Your task to perform on an android device: turn on javascript in the chrome app Image 0: 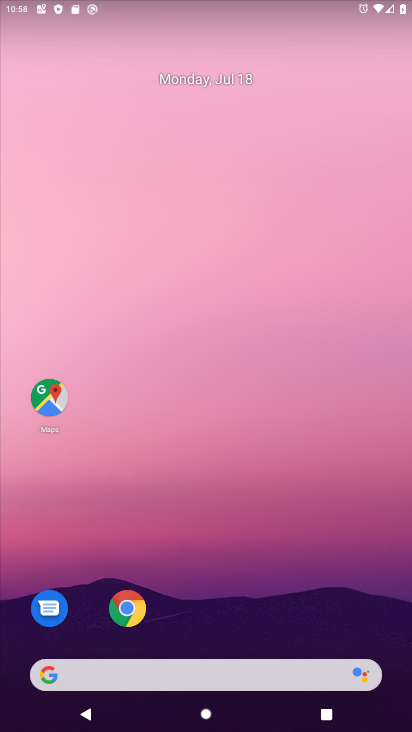
Step 0: click (129, 620)
Your task to perform on an android device: turn on javascript in the chrome app Image 1: 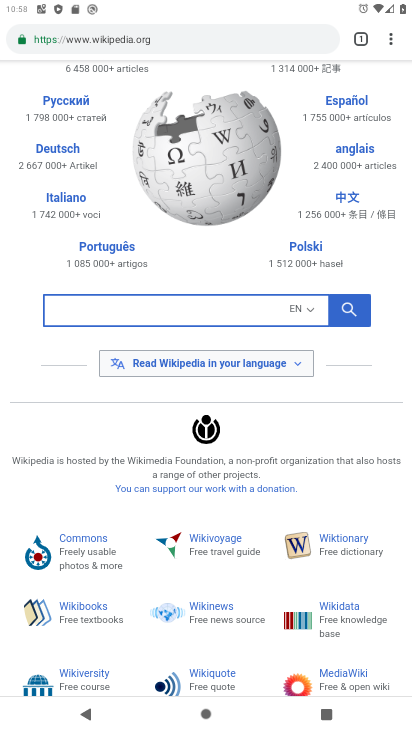
Step 1: click (387, 35)
Your task to perform on an android device: turn on javascript in the chrome app Image 2: 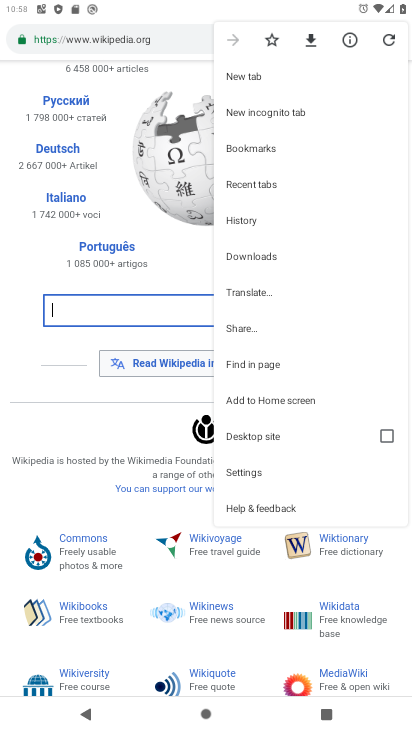
Step 2: click (243, 476)
Your task to perform on an android device: turn on javascript in the chrome app Image 3: 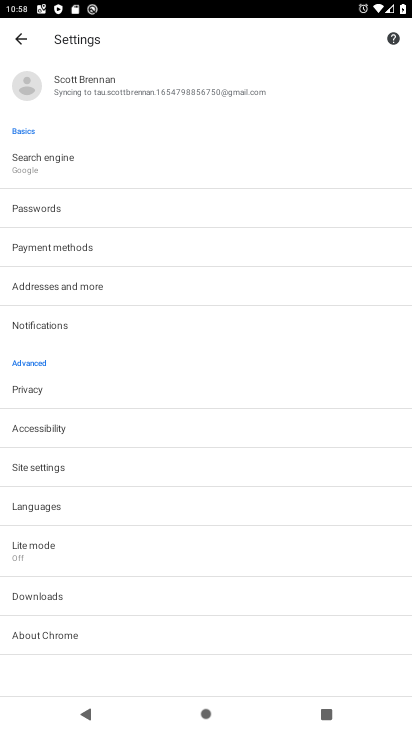
Step 3: click (55, 469)
Your task to perform on an android device: turn on javascript in the chrome app Image 4: 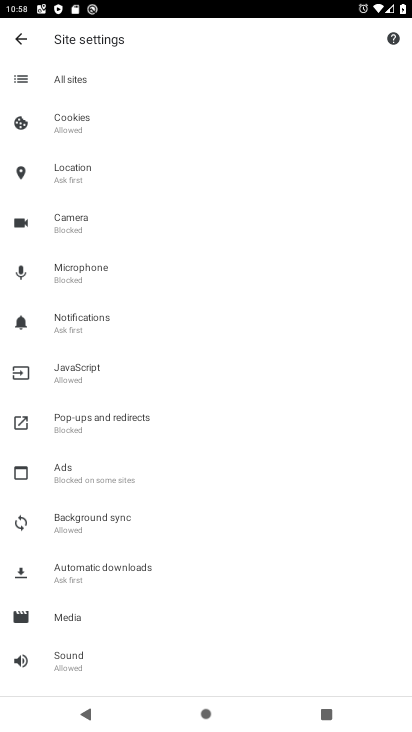
Step 4: click (88, 388)
Your task to perform on an android device: turn on javascript in the chrome app Image 5: 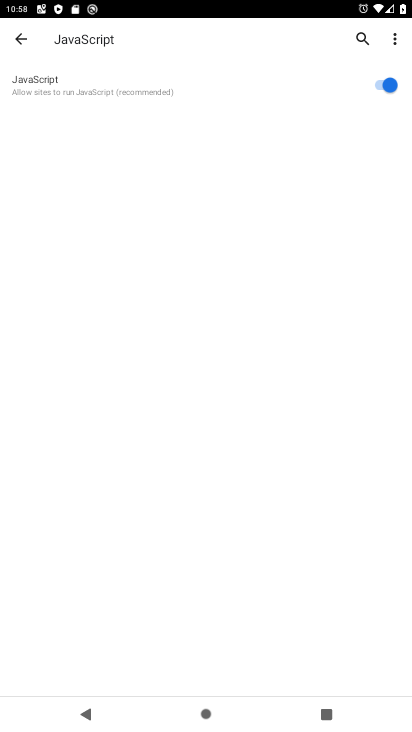
Step 5: task complete